Your task to perform on an android device: Open Google Chrome and click the shortcut for Amazon.com Image 0: 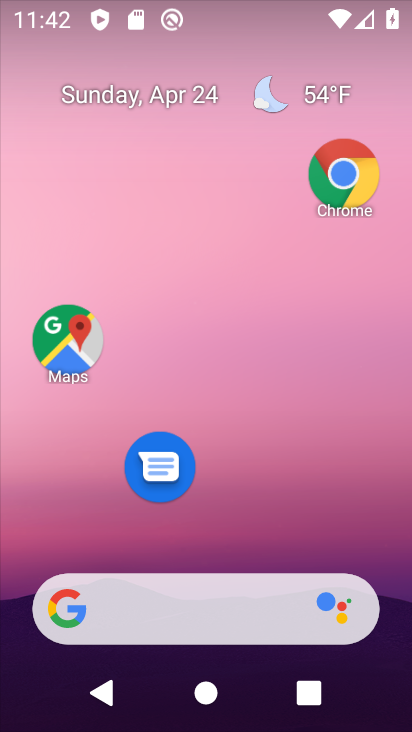
Step 0: drag from (228, 524) to (331, 216)
Your task to perform on an android device: Open Google Chrome and click the shortcut for Amazon.com Image 1: 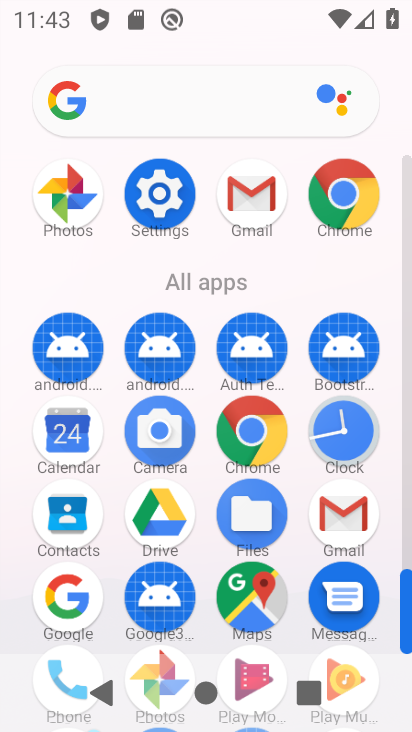
Step 1: click (256, 425)
Your task to perform on an android device: Open Google Chrome and click the shortcut for Amazon.com Image 2: 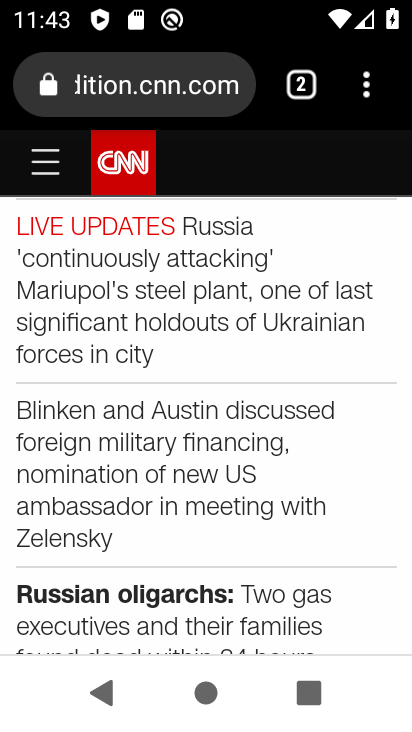
Step 2: drag from (228, 295) to (283, 192)
Your task to perform on an android device: Open Google Chrome and click the shortcut for Amazon.com Image 3: 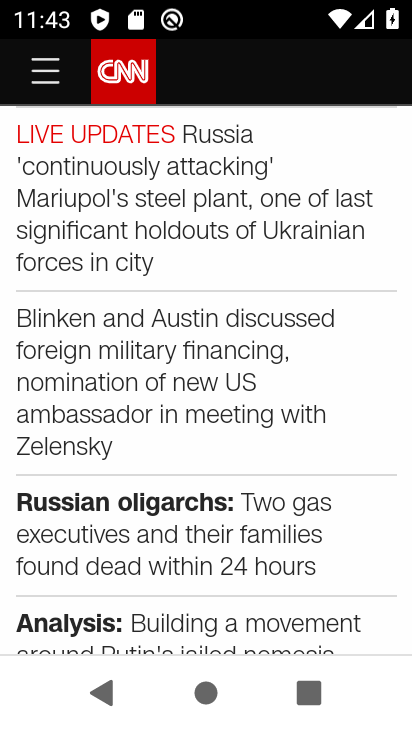
Step 3: click (307, 99)
Your task to perform on an android device: Open Google Chrome and click the shortcut for Amazon.com Image 4: 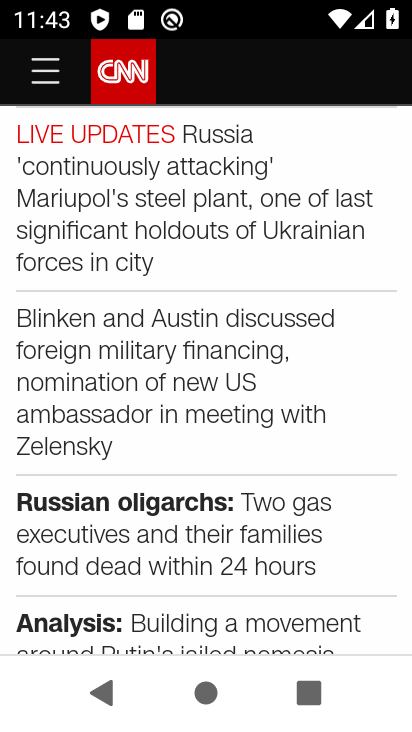
Step 4: drag from (308, 99) to (258, 569)
Your task to perform on an android device: Open Google Chrome and click the shortcut for Amazon.com Image 5: 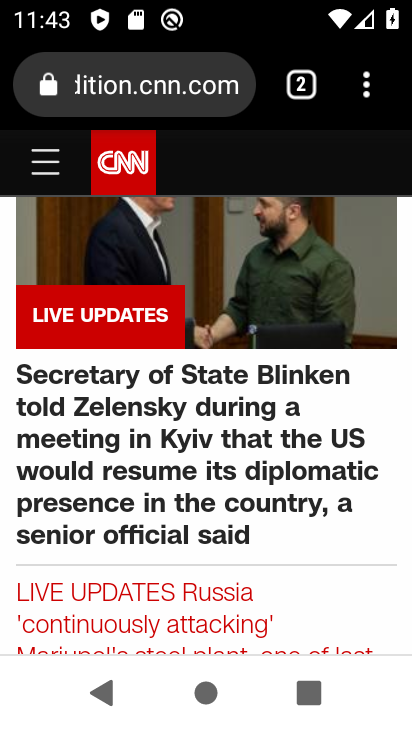
Step 5: click (309, 86)
Your task to perform on an android device: Open Google Chrome and click the shortcut for Amazon.com Image 6: 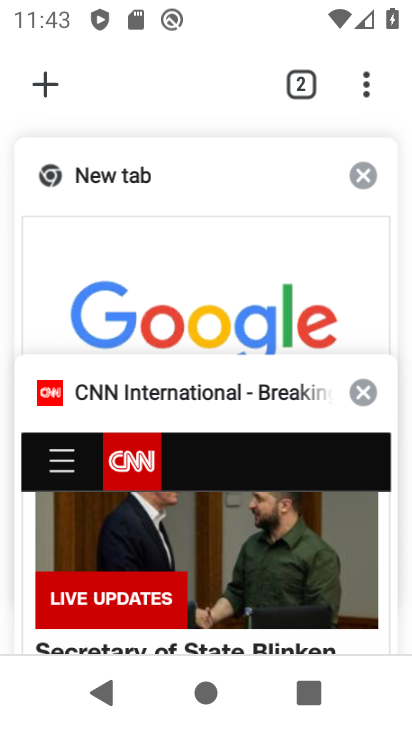
Step 6: click (46, 79)
Your task to perform on an android device: Open Google Chrome and click the shortcut for Amazon.com Image 7: 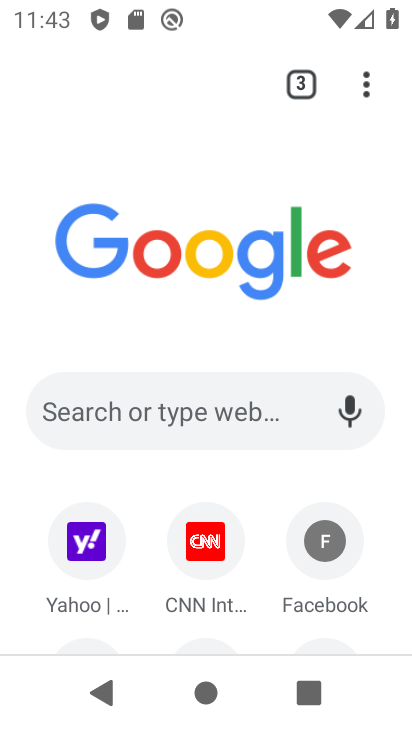
Step 7: drag from (248, 555) to (218, 234)
Your task to perform on an android device: Open Google Chrome and click the shortcut for Amazon.com Image 8: 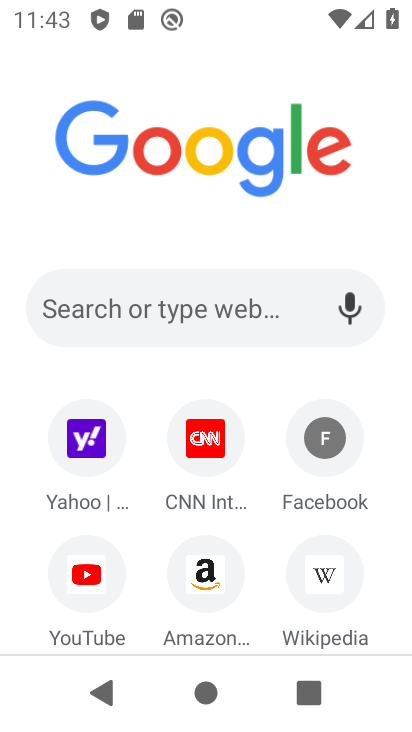
Step 8: drag from (238, 197) to (364, 600)
Your task to perform on an android device: Open Google Chrome and click the shortcut for Amazon.com Image 9: 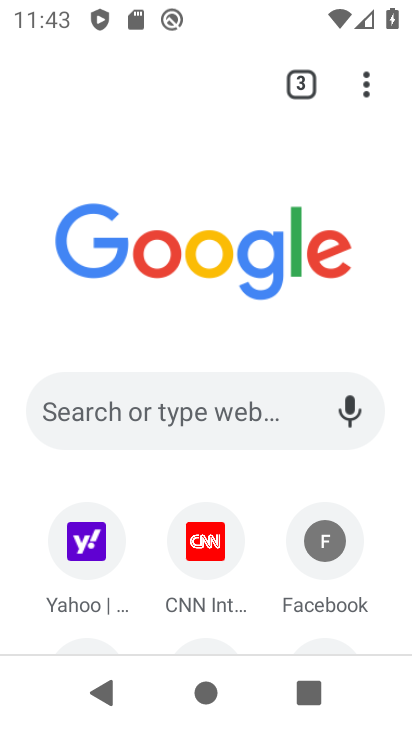
Step 9: drag from (272, 607) to (308, 274)
Your task to perform on an android device: Open Google Chrome and click the shortcut for Amazon.com Image 10: 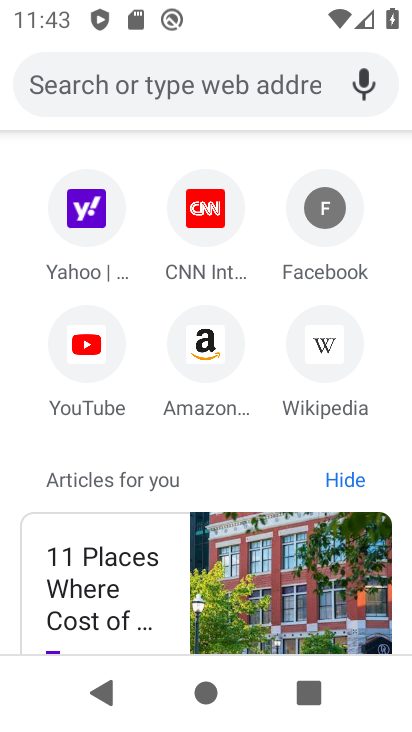
Step 10: click (205, 326)
Your task to perform on an android device: Open Google Chrome and click the shortcut for Amazon.com Image 11: 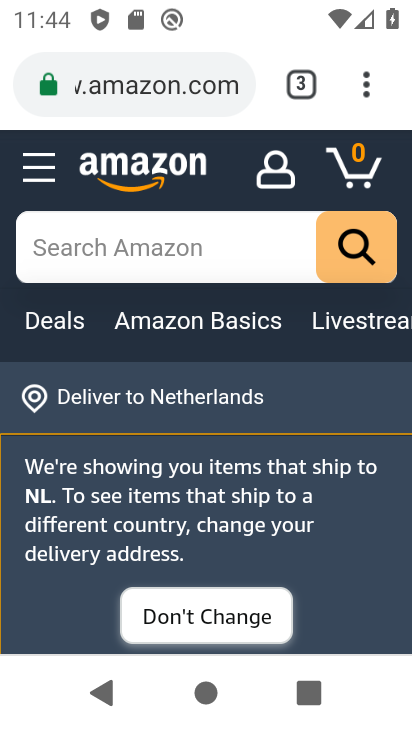
Step 11: task complete